Your task to perform on an android device: Search for hotels in Washington DC Image 0: 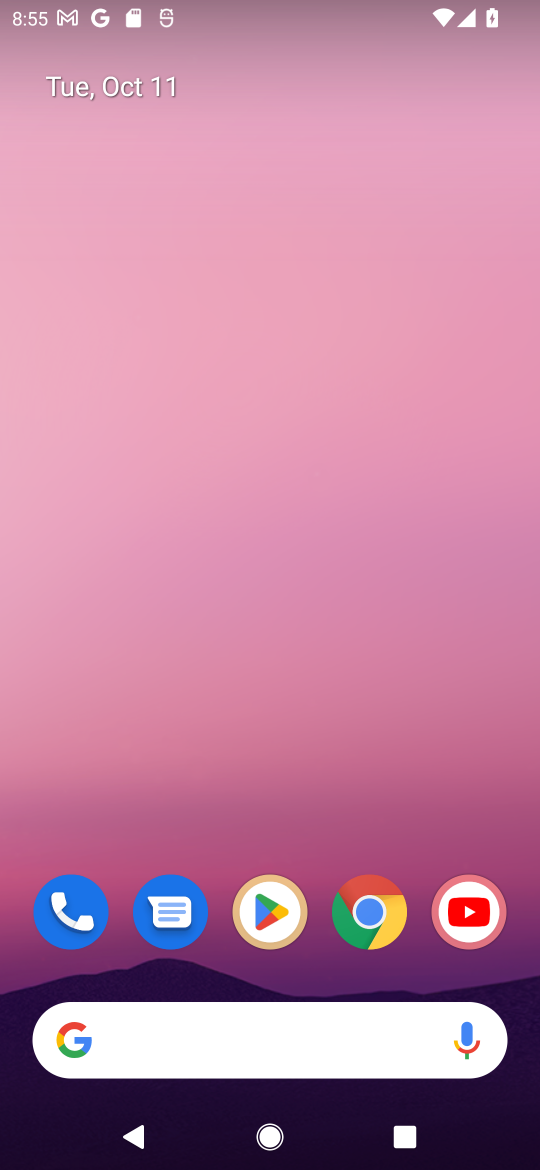
Step 0: click (365, 913)
Your task to perform on an android device: Search for hotels in Washington DC Image 1: 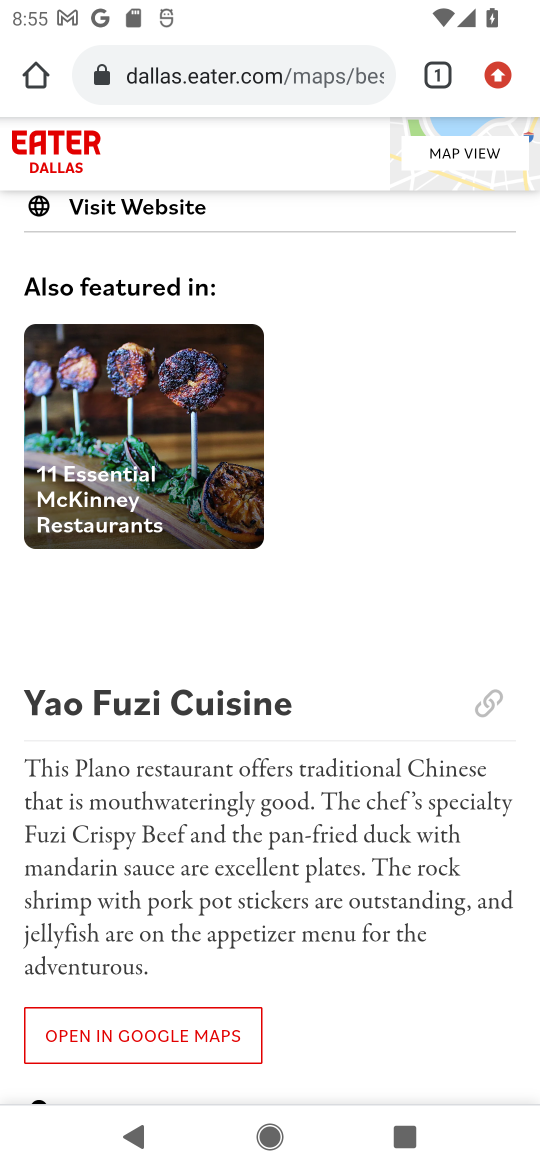
Step 1: click (234, 51)
Your task to perform on an android device: Search for hotels in Washington DC Image 2: 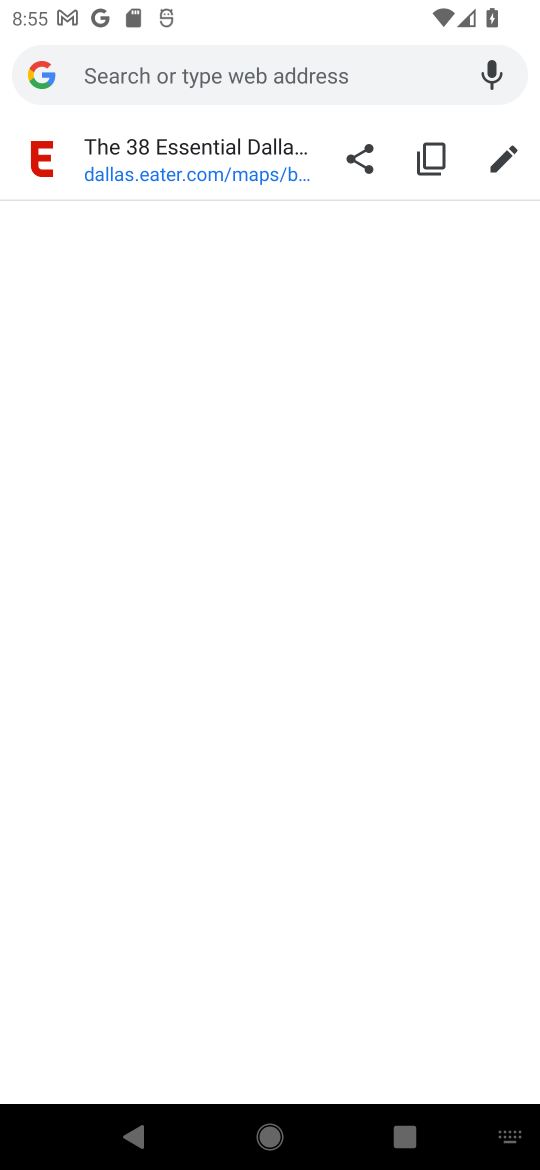
Step 2: type "hotels in washington DC"
Your task to perform on an android device: Search for hotels in Washington DC Image 3: 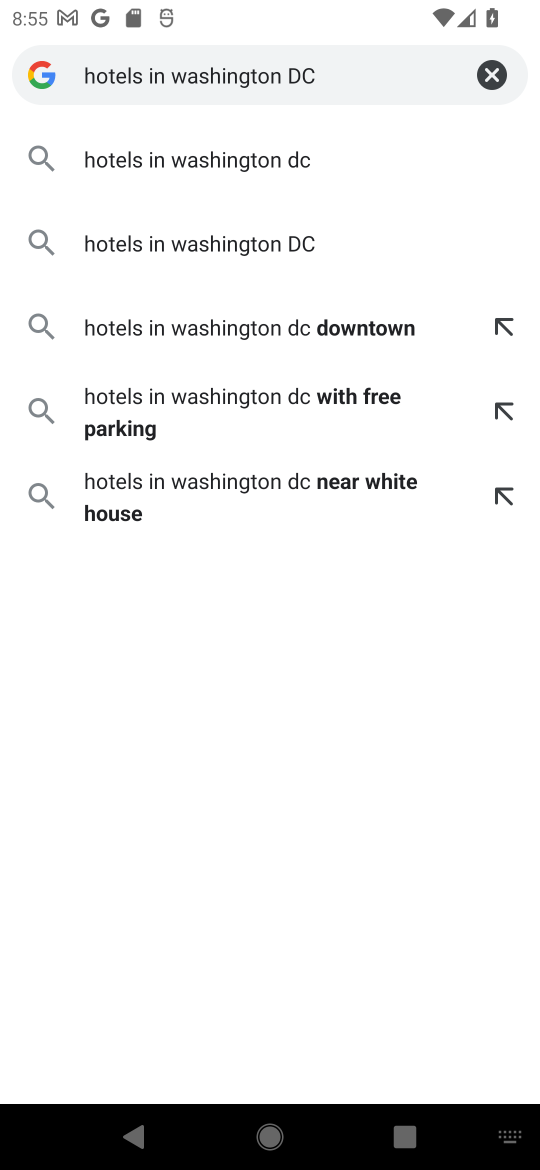
Step 3: click (153, 151)
Your task to perform on an android device: Search for hotels in Washington DC Image 4: 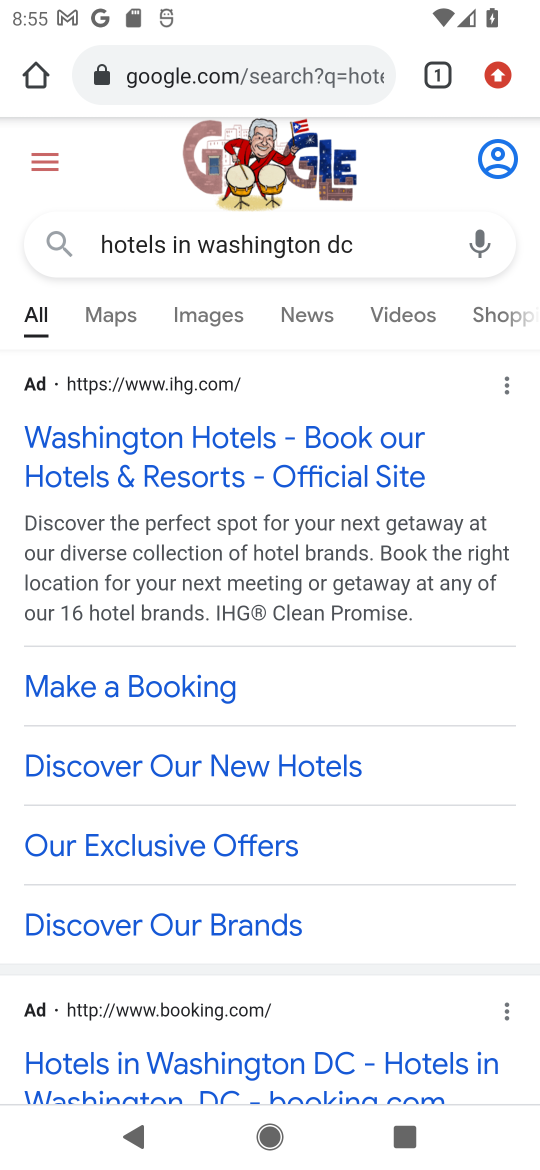
Step 4: click (138, 439)
Your task to perform on an android device: Search for hotels in Washington DC Image 5: 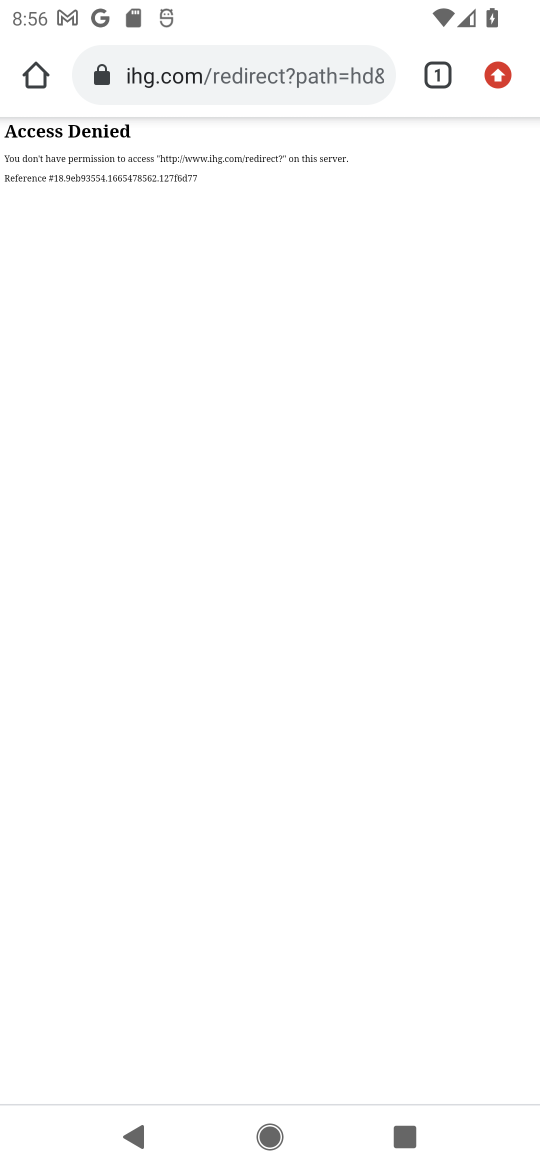
Step 5: press back button
Your task to perform on an android device: Search for hotels in Washington DC Image 6: 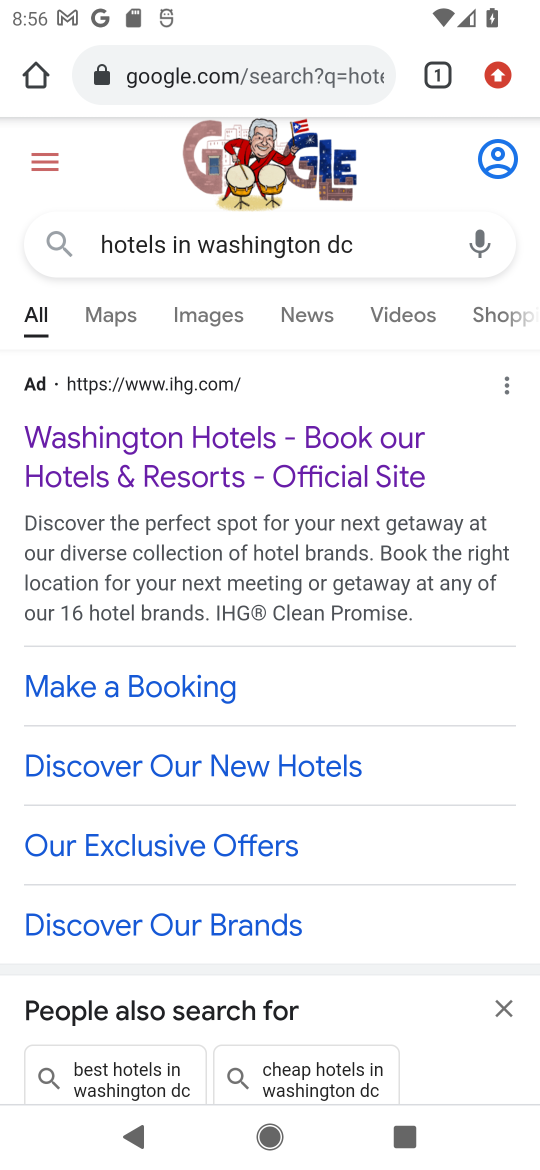
Step 6: drag from (300, 792) to (289, 349)
Your task to perform on an android device: Search for hotels in Washington DC Image 7: 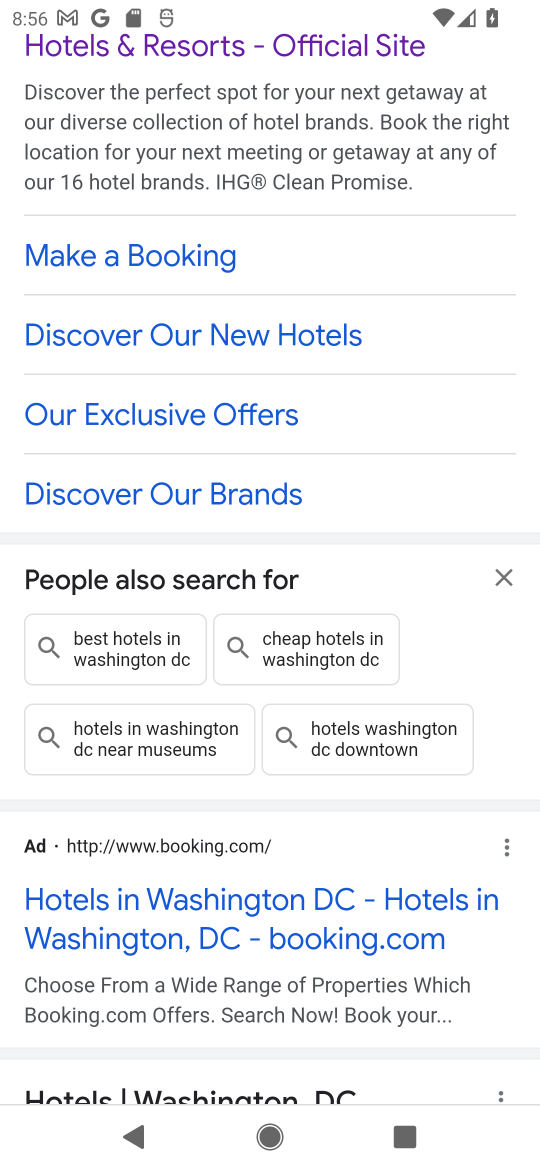
Step 7: drag from (240, 863) to (288, 284)
Your task to perform on an android device: Search for hotels in Washington DC Image 8: 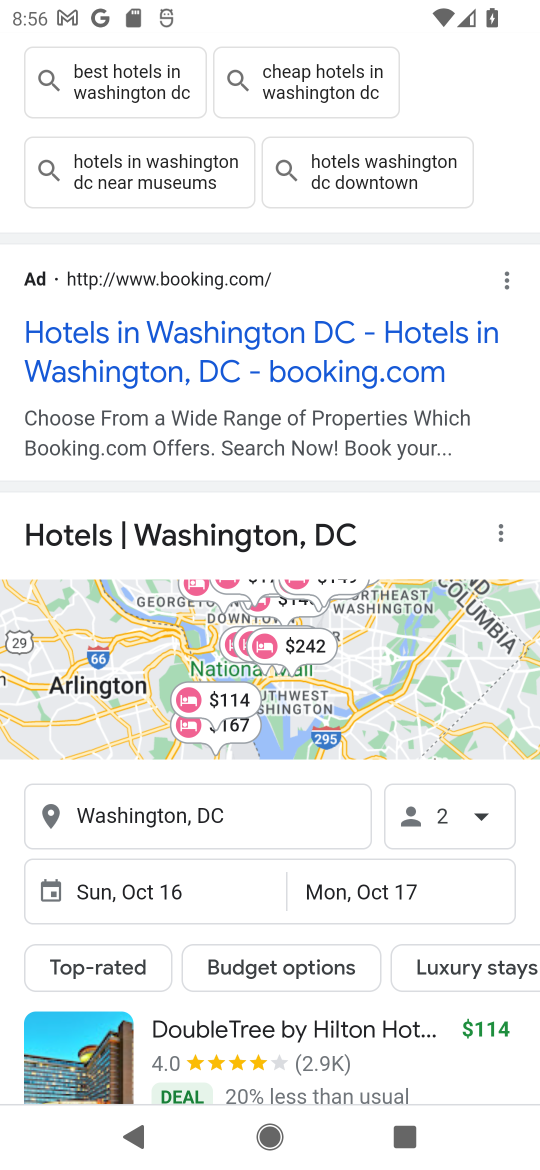
Step 8: click (121, 320)
Your task to perform on an android device: Search for hotels in Washington DC Image 9: 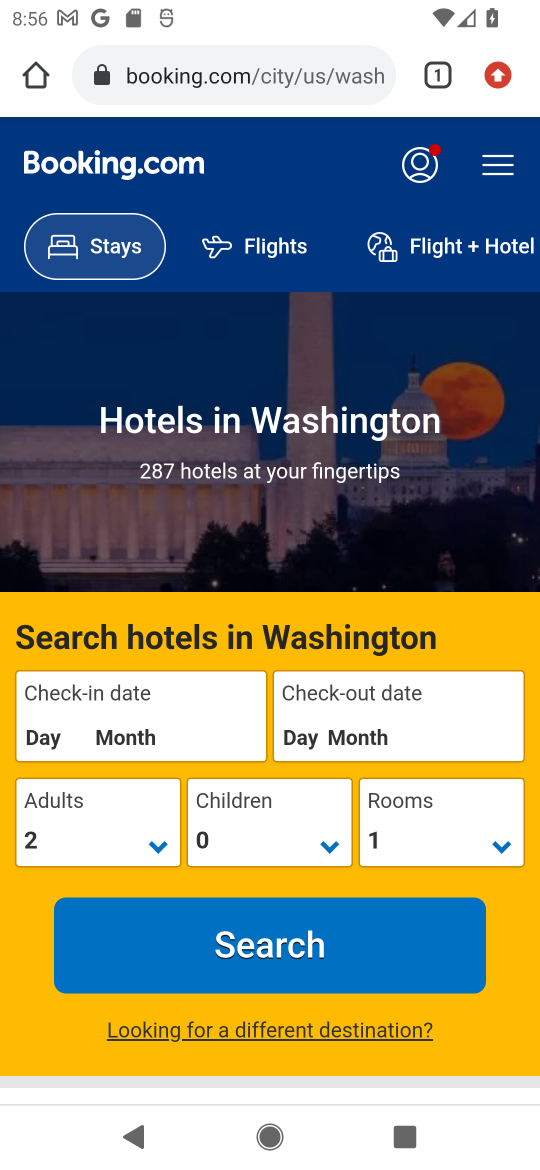
Step 9: click (265, 951)
Your task to perform on an android device: Search for hotels in Washington DC Image 10: 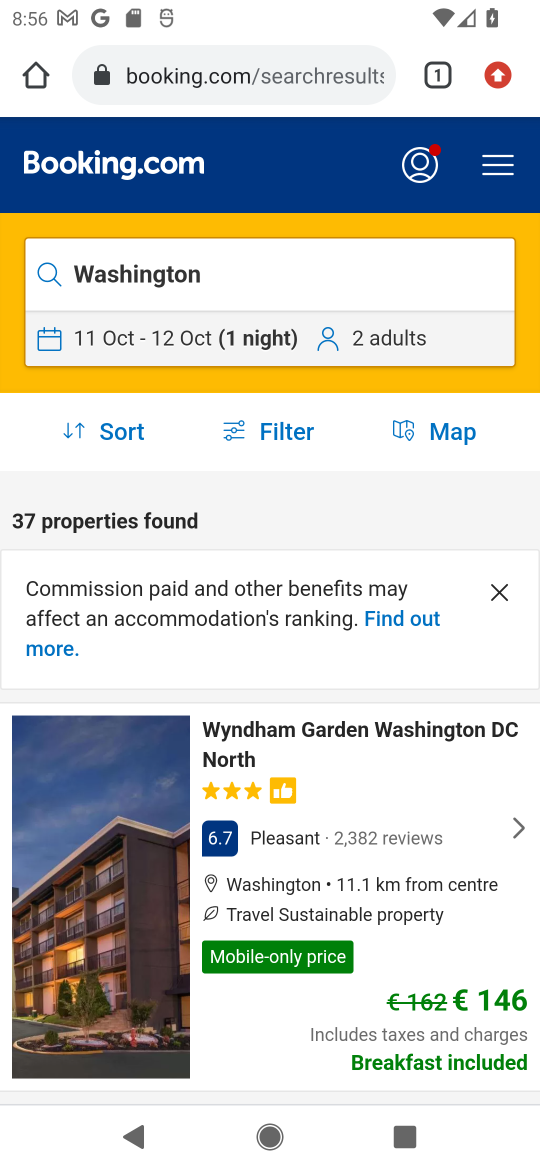
Step 10: task complete